Your task to perform on an android device: Play the last video I watched on Youtube Image 0: 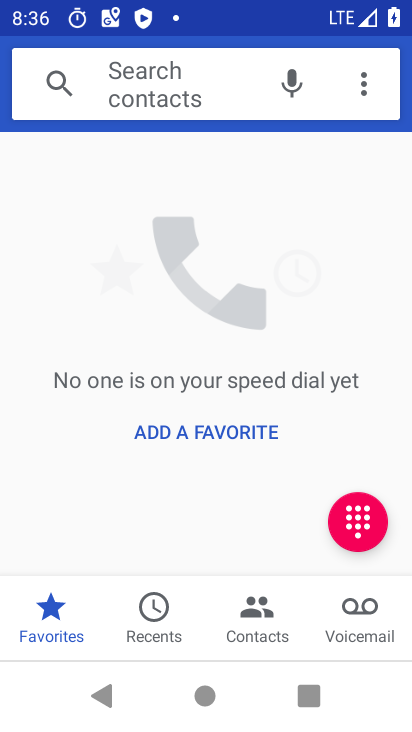
Step 0: press home button
Your task to perform on an android device: Play the last video I watched on Youtube Image 1: 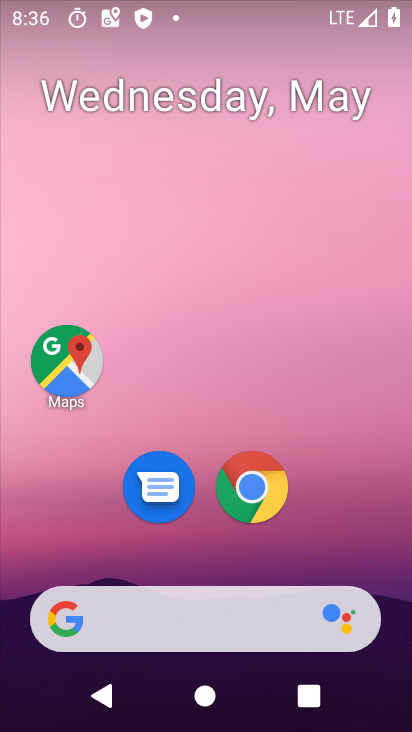
Step 1: drag from (223, 569) to (221, 268)
Your task to perform on an android device: Play the last video I watched on Youtube Image 2: 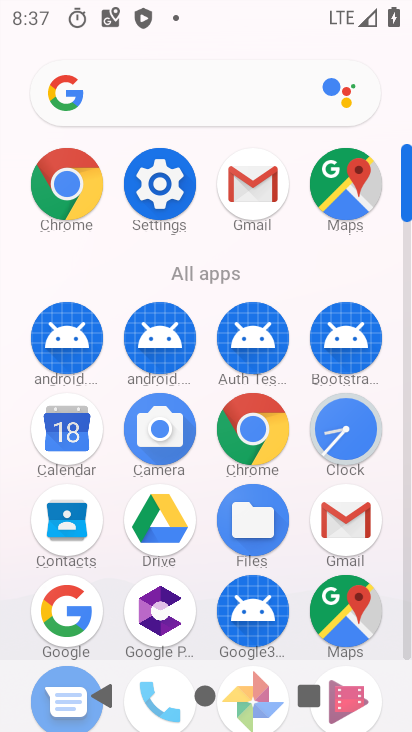
Step 2: drag from (210, 630) to (256, 241)
Your task to perform on an android device: Play the last video I watched on Youtube Image 3: 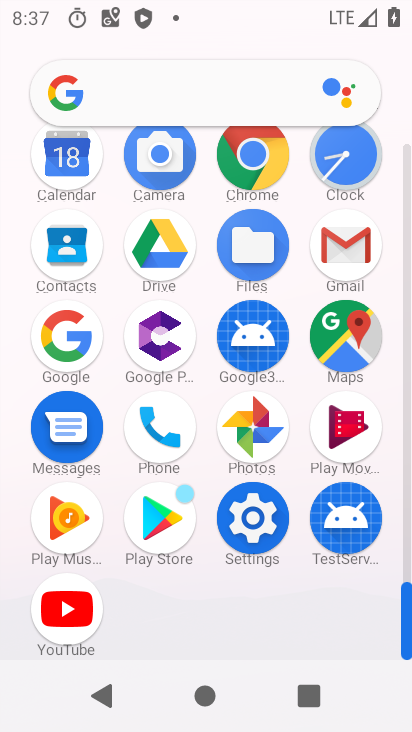
Step 3: click (60, 603)
Your task to perform on an android device: Play the last video I watched on Youtube Image 4: 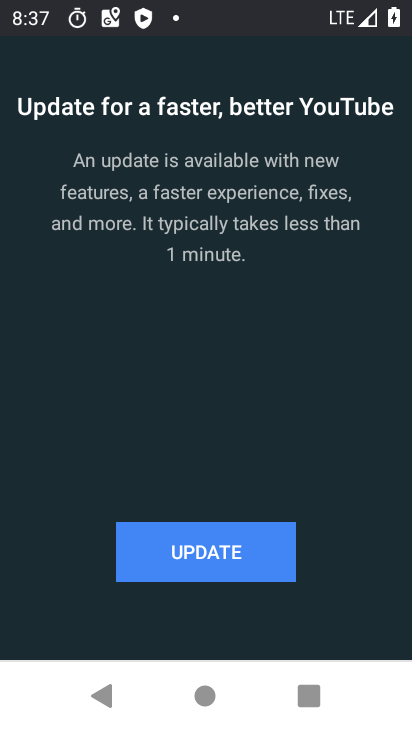
Step 4: click (222, 545)
Your task to perform on an android device: Play the last video I watched on Youtube Image 5: 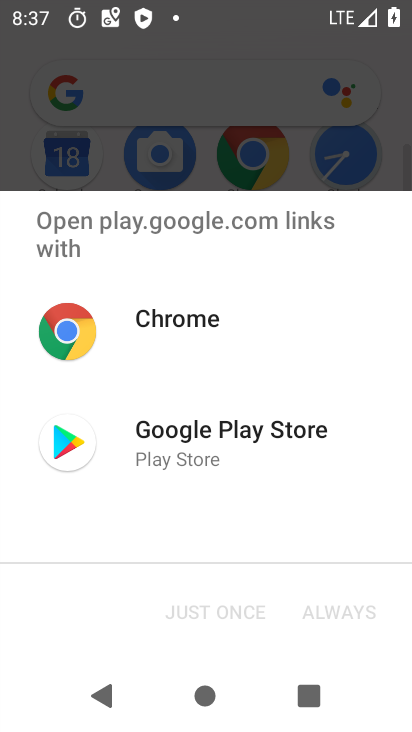
Step 5: click (229, 455)
Your task to perform on an android device: Play the last video I watched on Youtube Image 6: 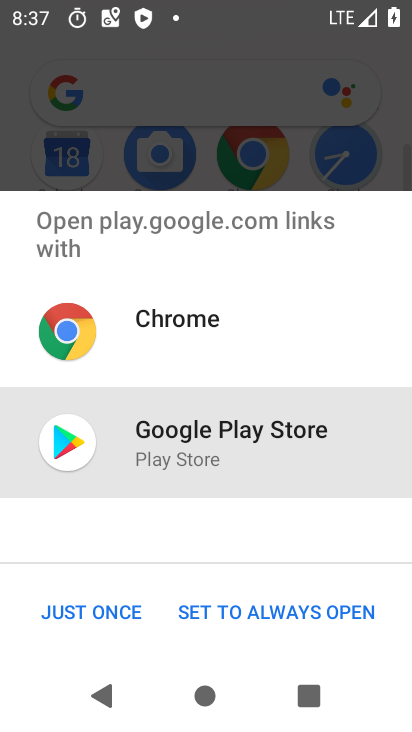
Step 6: click (54, 612)
Your task to perform on an android device: Play the last video I watched on Youtube Image 7: 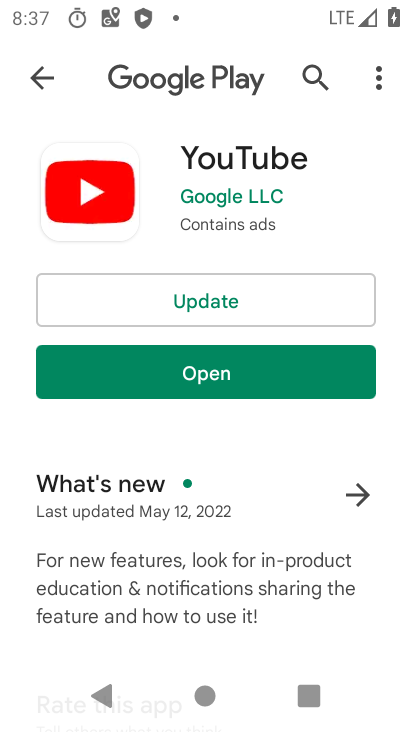
Step 7: click (149, 306)
Your task to perform on an android device: Play the last video I watched on Youtube Image 8: 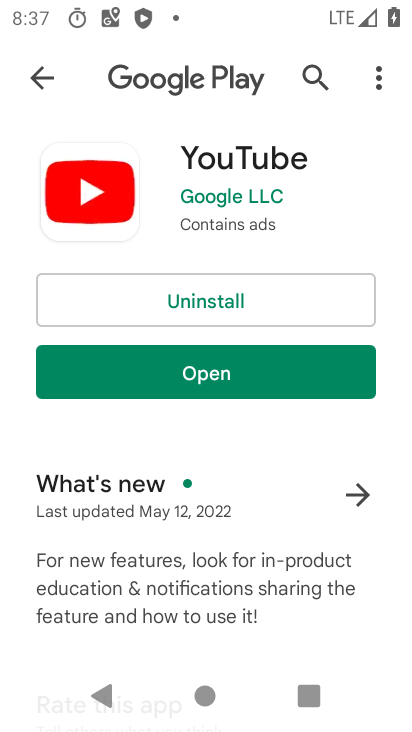
Step 8: click (167, 369)
Your task to perform on an android device: Play the last video I watched on Youtube Image 9: 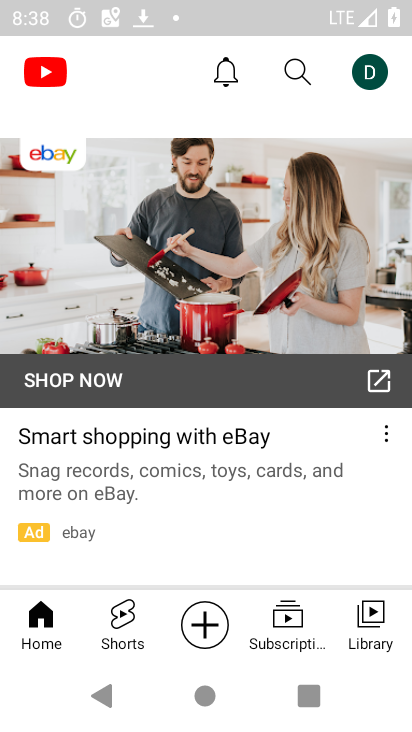
Step 9: click (373, 86)
Your task to perform on an android device: Play the last video I watched on Youtube Image 10: 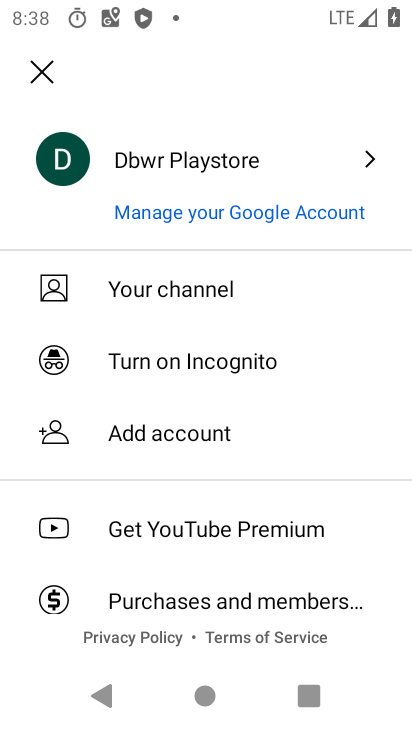
Step 10: click (49, 60)
Your task to perform on an android device: Play the last video I watched on Youtube Image 11: 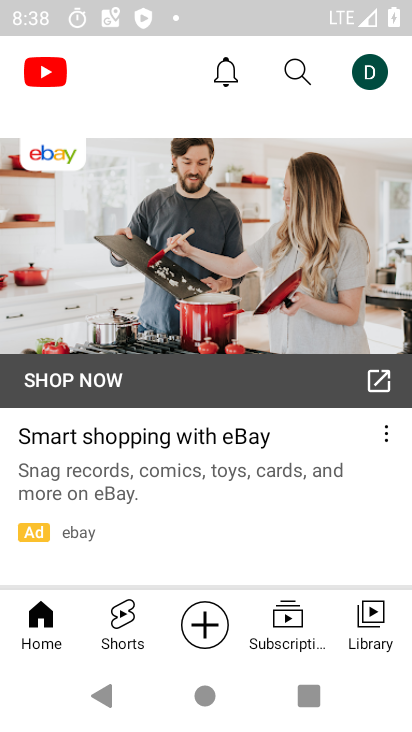
Step 11: click (363, 628)
Your task to perform on an android device: Play the last video I watched on Youtube Image 12: 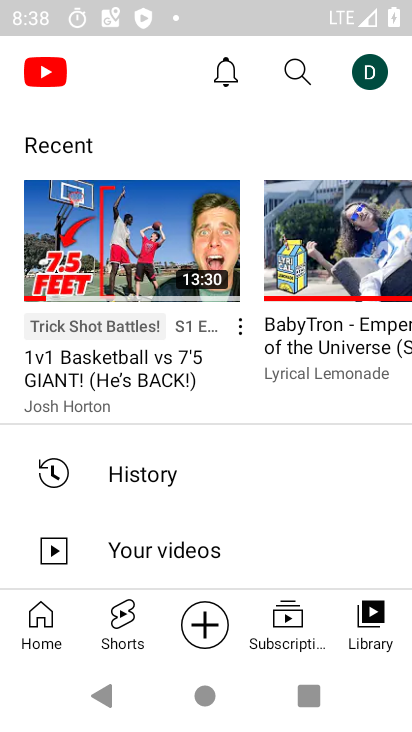
Step 12: click (161, 472)
Your task to perform on an android device: Play the last video I watched on Youtube Image 13: 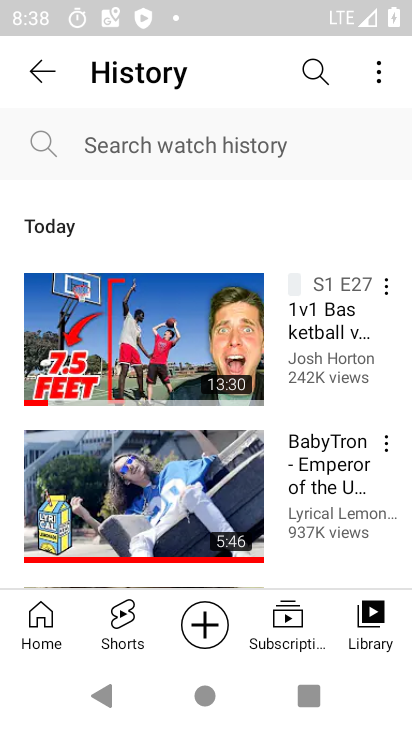
Step 13: click (209, 315)
Your task to perform on an android device: Play the last video I watched on Youtube Image 14: 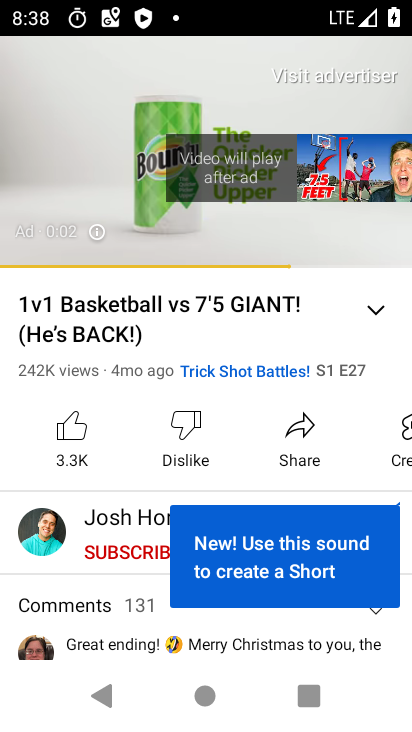
Step 14: task complete